Your task to perform on an android device: delete location history Image 0: 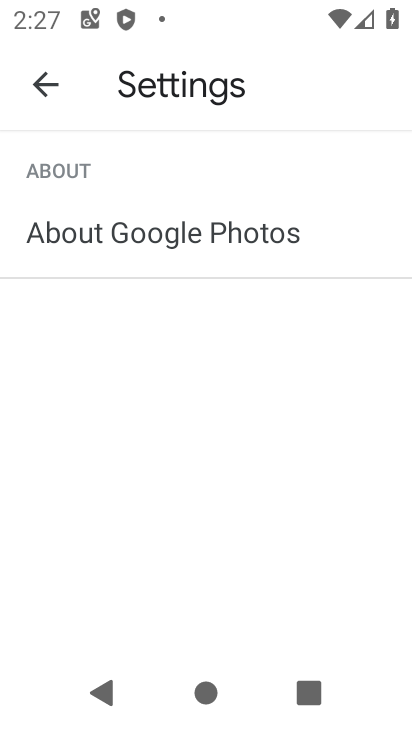
Step 0: press home button
Your task to perform on an android device: delete location history Image 1: 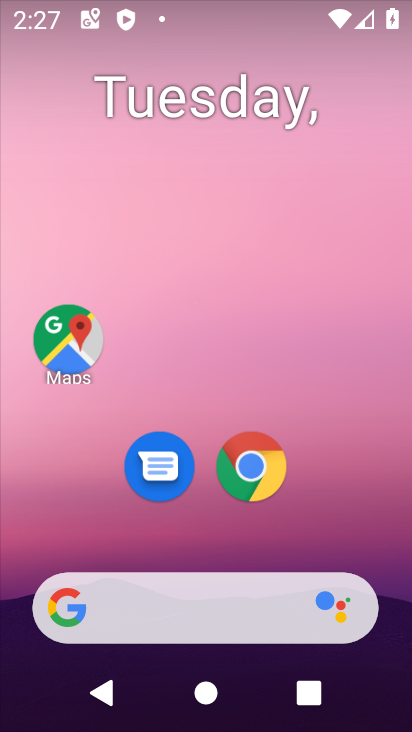
Step 1: drag from (396, 546) to (247, 15)
Your task to perform on an android device: delete location history Image 2: 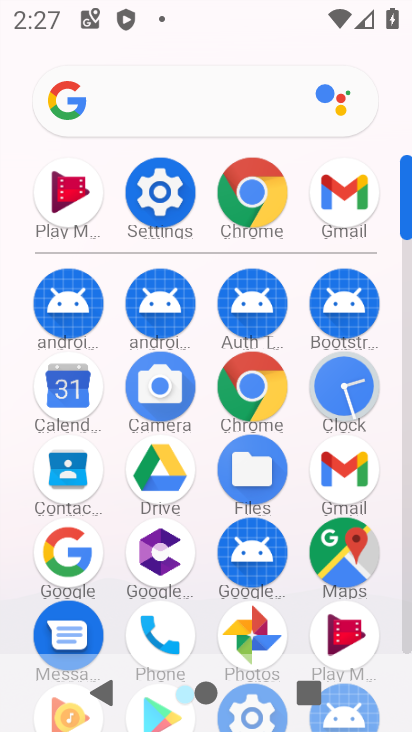
Step 2: click (177, 189)
Your task to perform on an android device: delete location history Image 3: 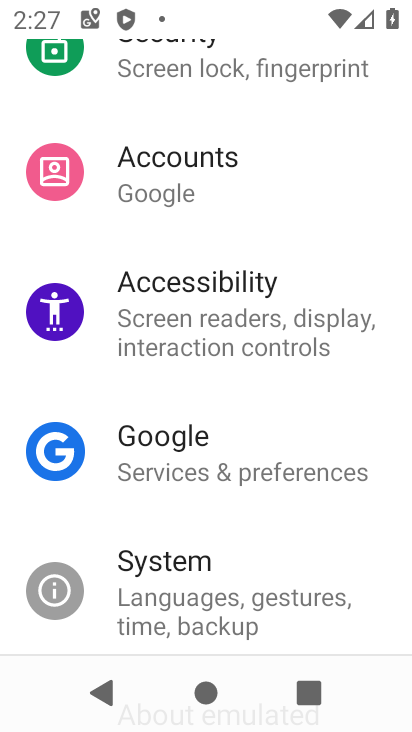
Step 3: drag from (259, 267) to (294, 710)
Your task to perform on an android device: delete location history Image 4: 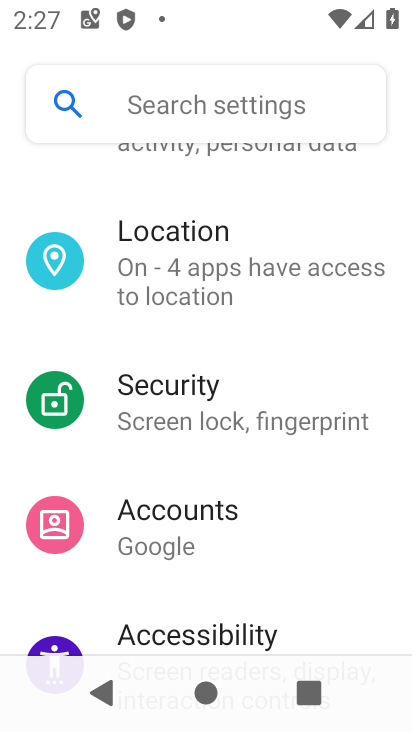
Step 4: click (154, 258)
Your task to perform on an android device: delete location history Image 5: 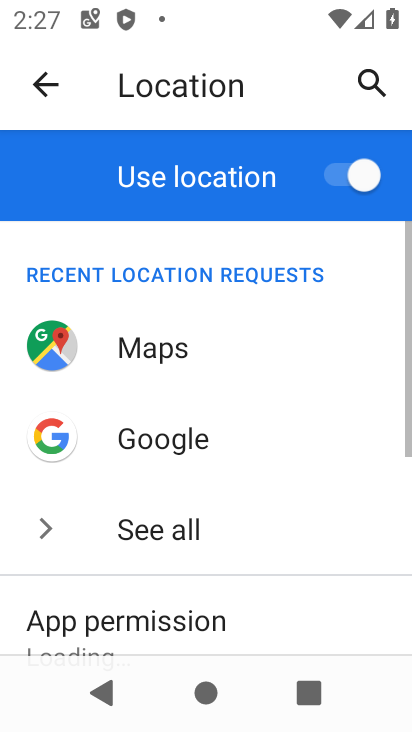
Step 5: task complete